Your task to perform on an android device: toggle notifications settings in the gmail app Image 0: 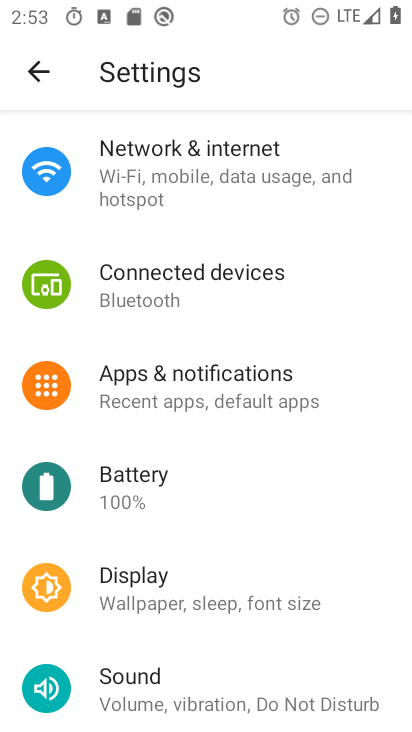
Step 0: drag from (241, 382) to (253, 511)
Your task to perform on an android device: toggle notifications settings in the gmail app Image 1: 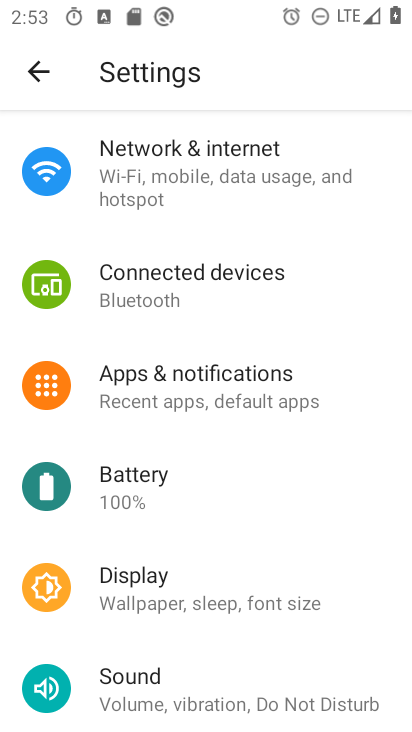
Step 1: click (269, 389)
Your task to perform on an android device: toggle notifications settings in the gmail app Image 2: 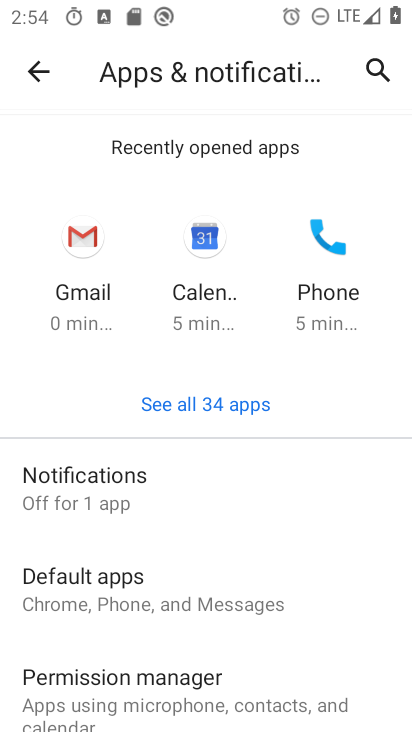
Step 2: click (165, 490)
Your task to perform on an android device: toggle notifications settings in the gmail app Image 3: 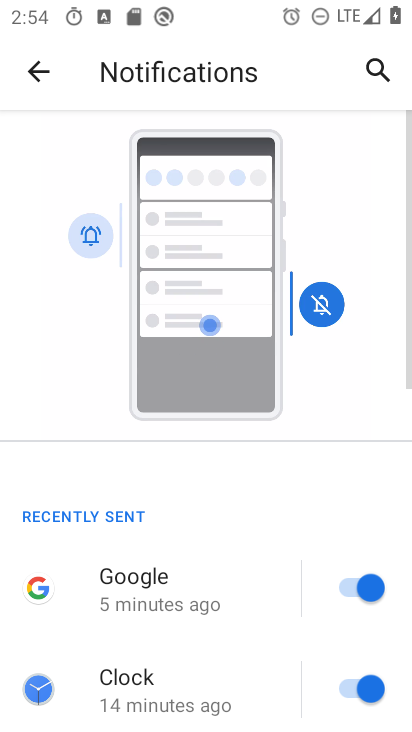
Step 3: drag from (198, 607) to (245, 115)
Your task to perform on an android device: toggle notifications settings in the gmail app Image 4: 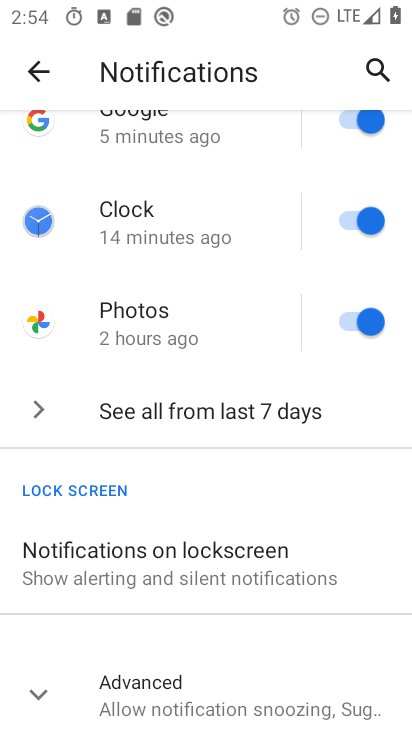
Step 4: drag from (181, 521) to (212, 308)
Your task to perform on an android device: toggle notifications settings in the gmail app Image 5: 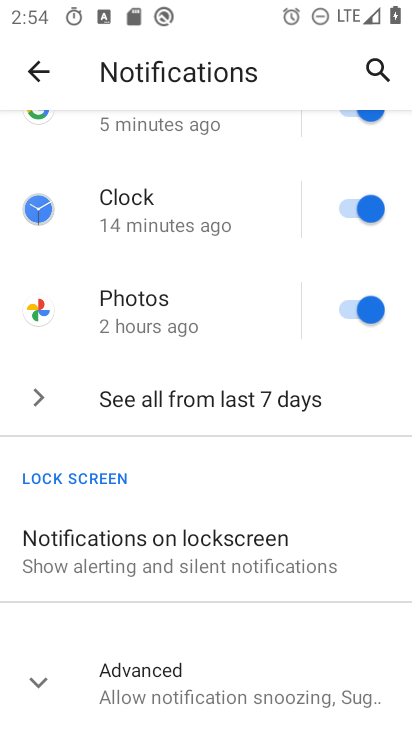
Step 5: click (359, 213)
Your task to perform on an android device: toggle notifications settings in the gmail app Image 6: 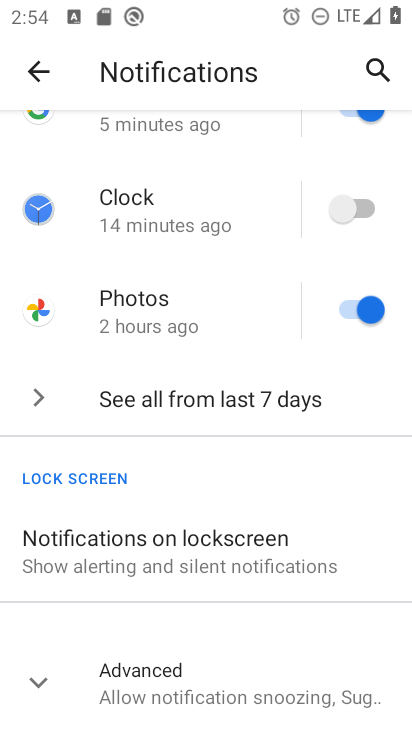
Step 6: task complete